Your task to perform on an android device: Play the last video I watched on Youtube Image 0: 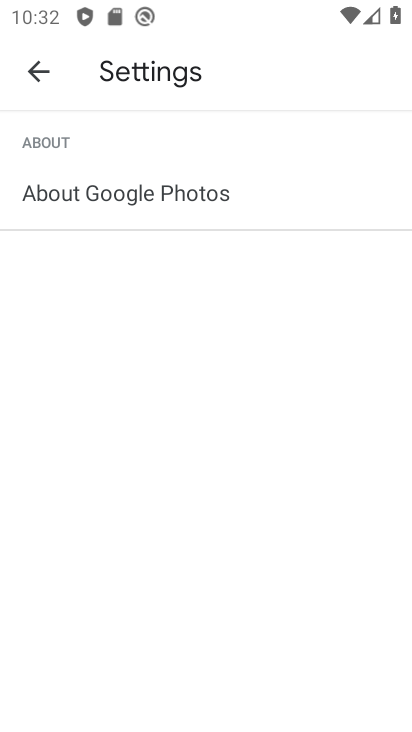
Step 0: press home button
Your task to perform on an android device: Play the last video I watched on Youtube Image 1: 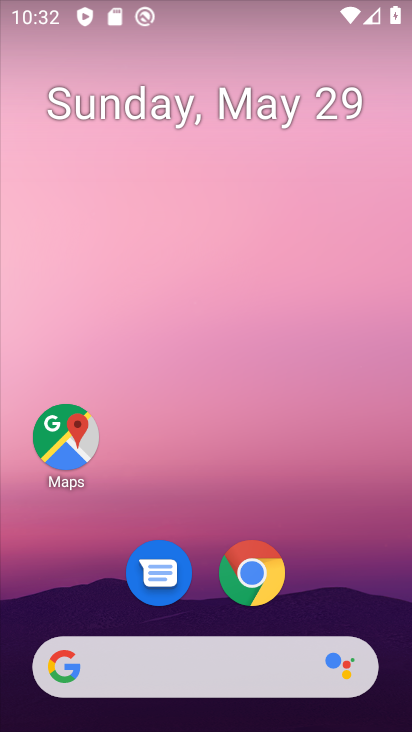
Step 1: drag from (357, 571) to (346, 128)
Your task to perform on an android device: Play the last video I watched on Youtube Image 2: 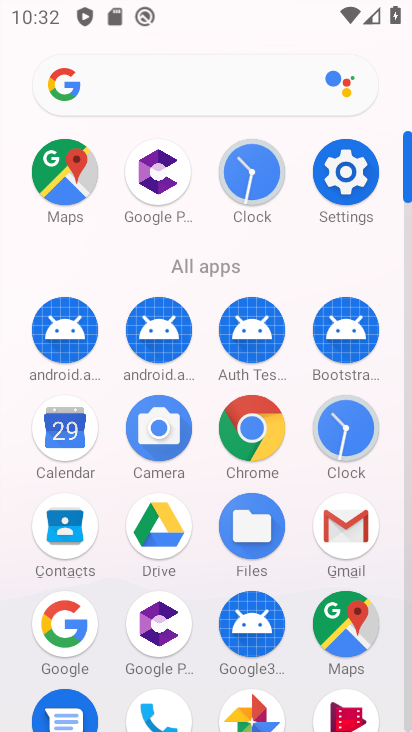
Step 2: drag from (299, 679) to (284, 97)
Your task to perform on an android device: Play the last video I watched on Youtube Image 3: 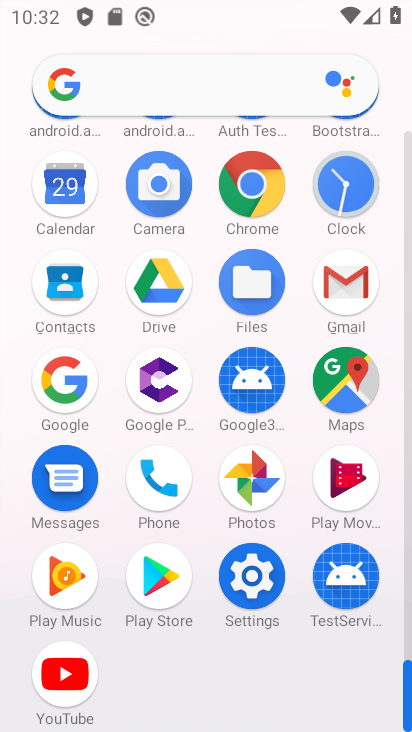
Step 3: click (64, 649)
Your task to perform on an android device: Play the last video I watched on Youtube Image 4: 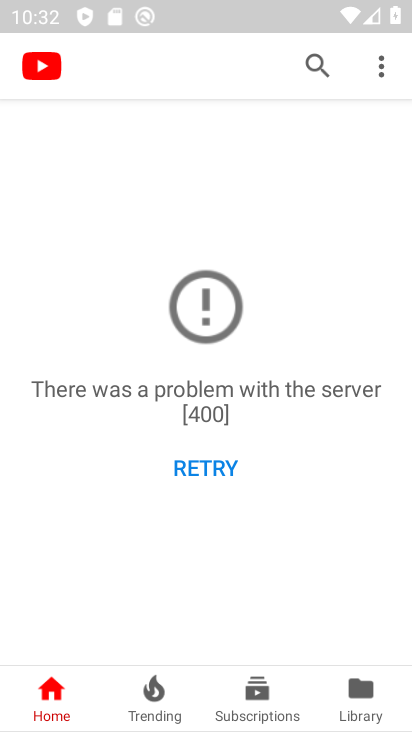
Step 4: click (360, 697)
Your task to perform on an android device: Play the last video I watched on Youtube Image 5: 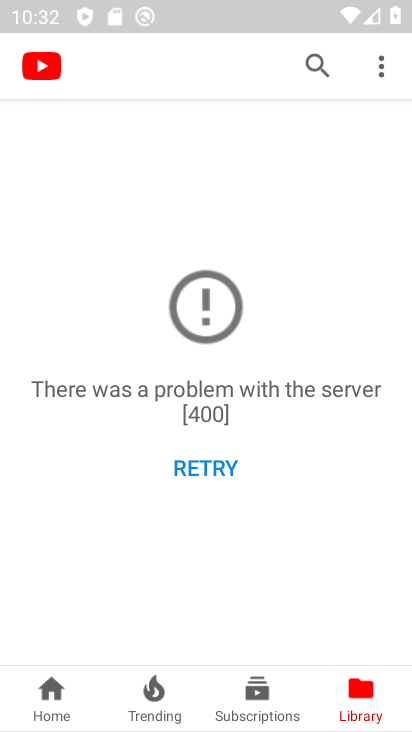
Step 5: click (364, 696)
Your task to perform on an android device: Play the last video I watched on Youtube Image 6: 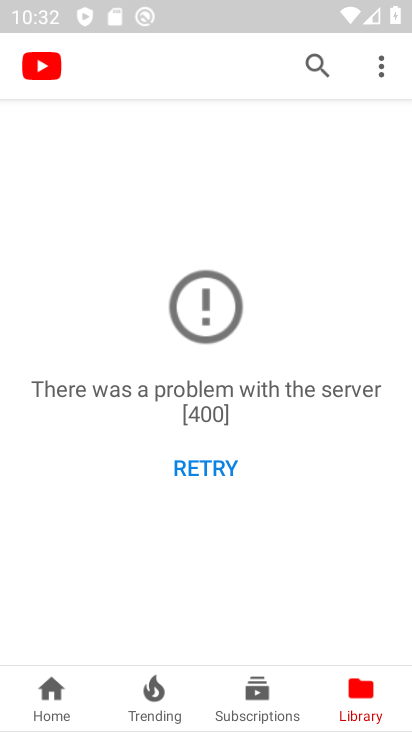
Step 6: click (211, 469)
Your task to perform on an android device: Play the last video I watched on Youtube Image 7: 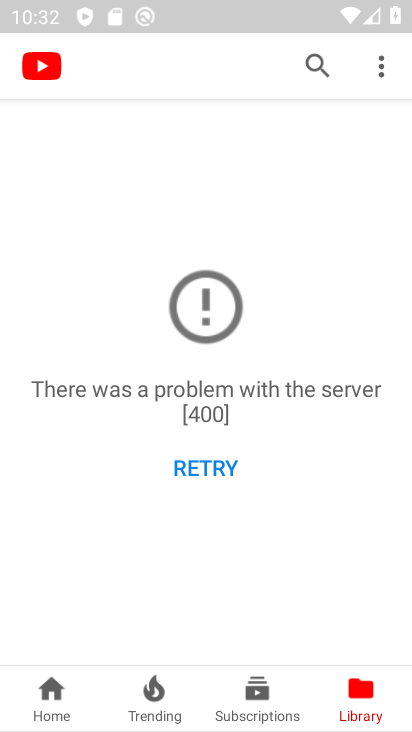
Step 7: task complete